Your task to perform on an android device: What is the recent news? Image 0: 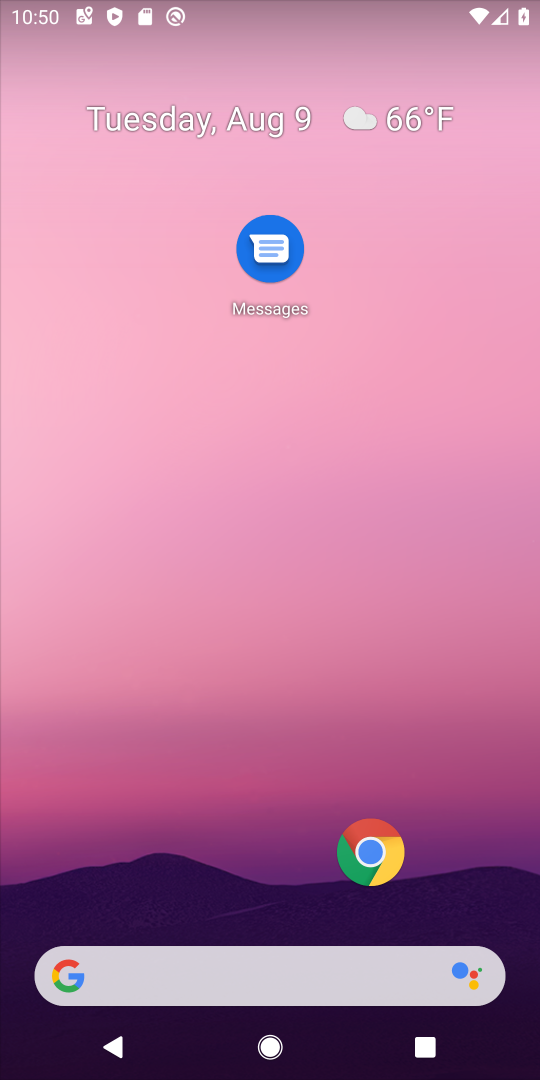
Step 0: task complete